Your task to perform on an android device: turn off wifi Image 0: 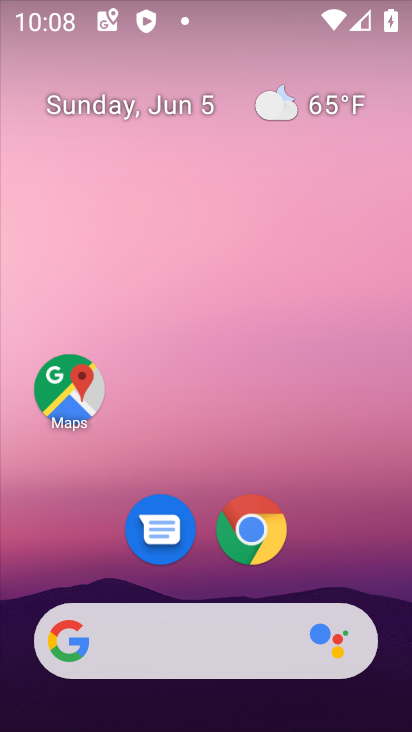
Step 0: drag from (154, 713) to (329, 33)
Your task to perform on an android device: turn off wifi Image 1: 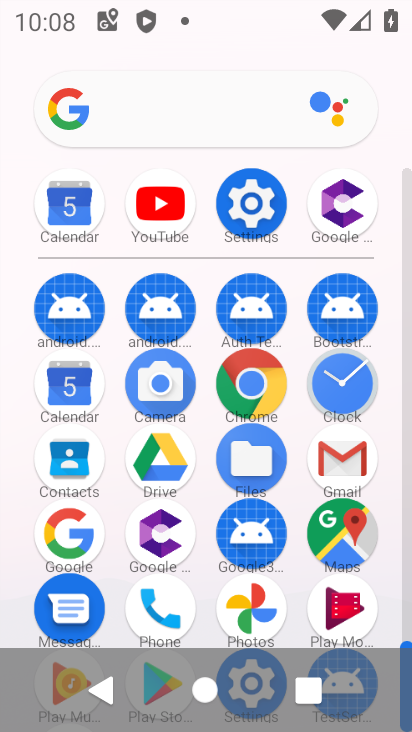
Step 1: click (234, 208)
Your task to perform on an android device: turn off wifi Image 2: 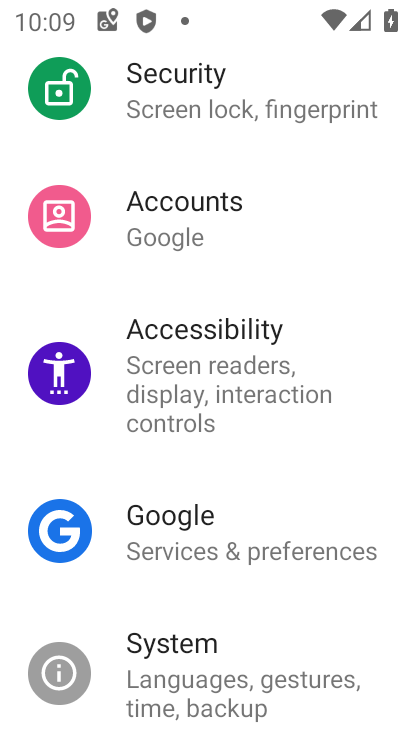
Step 2: drag from (193, 224) to (196, 726)
Your task to perform on an android device: turn off wifi Image 3: 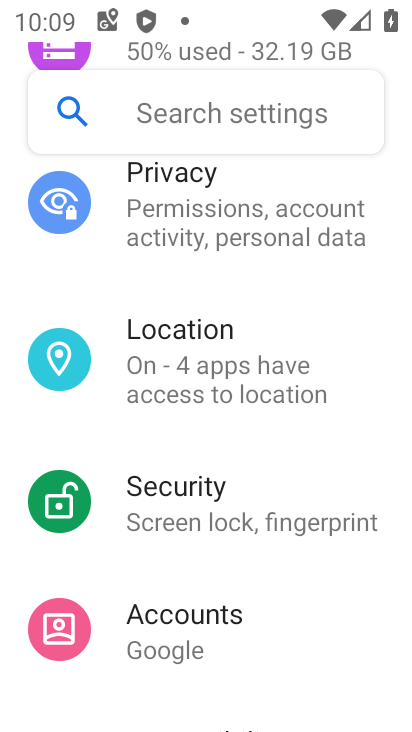
Step 3: drag from (336, 367) to (301, 722)
Your task to perform on an android device: turn off wifi Image 4: 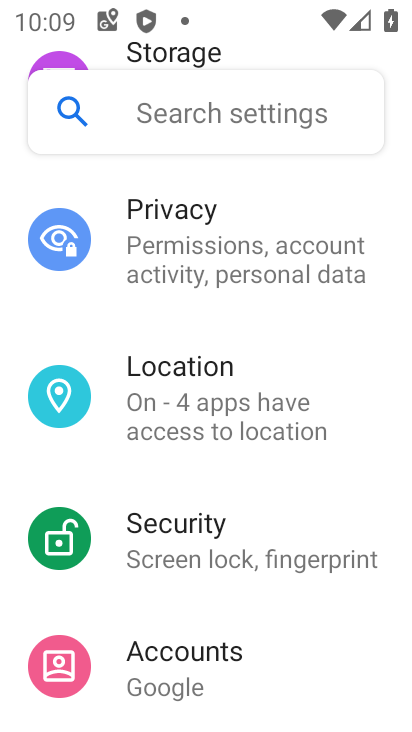
Step 4: drag from (334, 190) to (214, 727)
Your task to perform on an android device: turn off wifi Image 5: 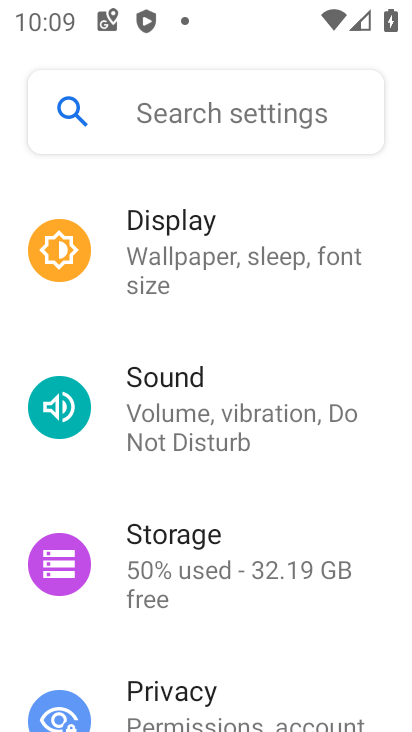
Step 5: drag from (289, 231) to (132, 728)
Your task to perform on an android device: turn off wifi Image 6: 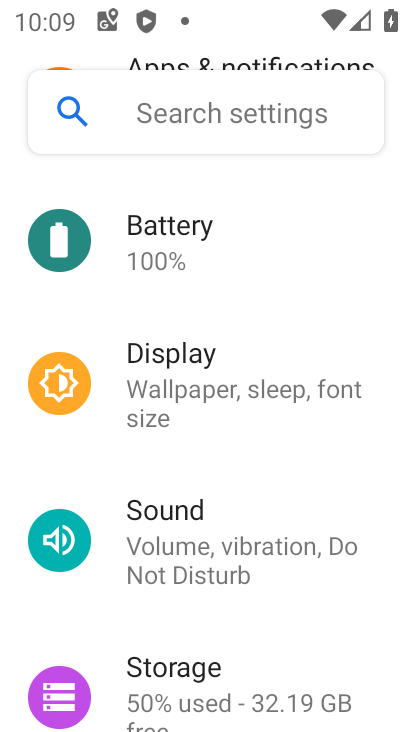
Step 6: drag from (325, 261) to (197, 720)
Your task to perform on an android device: turn off wifi Image 7: 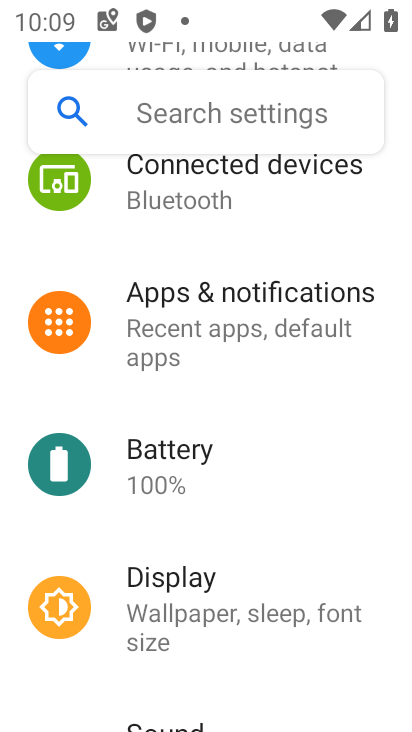
Step 7: drag from (251, 499) to (249, 723)
Your task to perform on an android device: turn off wifi Image 8: 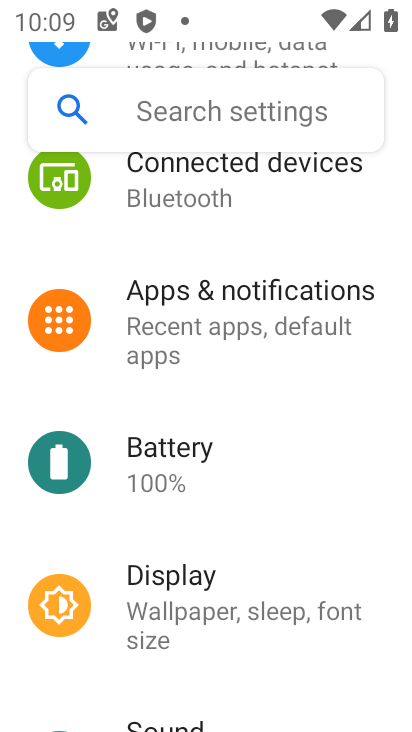
Step 8: drag from (278, 376) to (191, 721)
Your task to perform on an android device: turn off wifi Image 9: 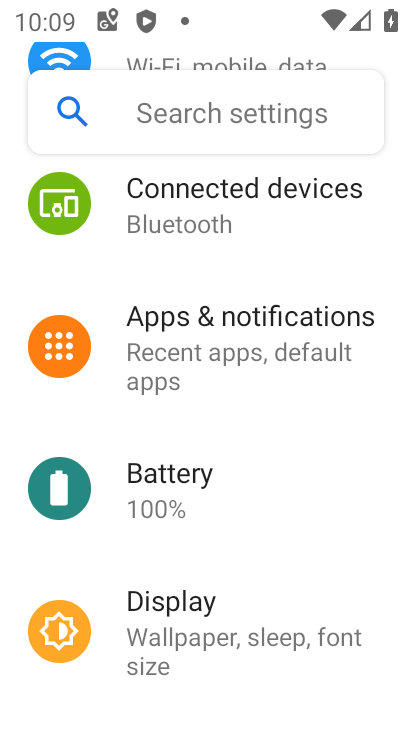
Step 9: drag from (297, 255) to (256, 681)
Your task to perform on an android device: turn off wifi Image 10: 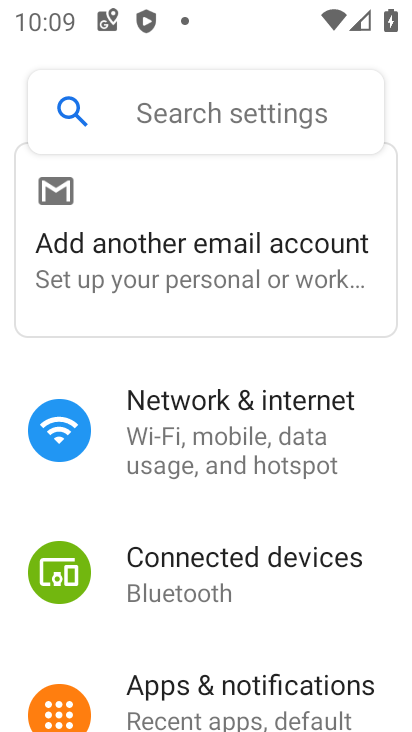
Step 10: click (240, 444)
Your task to perform on an android device: turn off wifi Image 11: 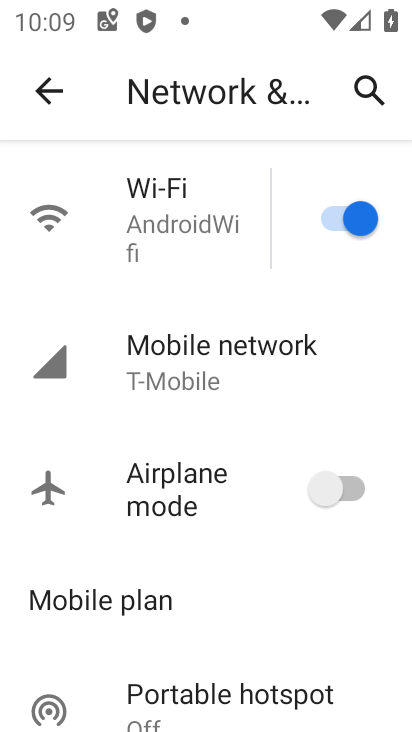
Step 11: click (357, 232)
Your task to perform on an android device: turn off wifi Image 12: 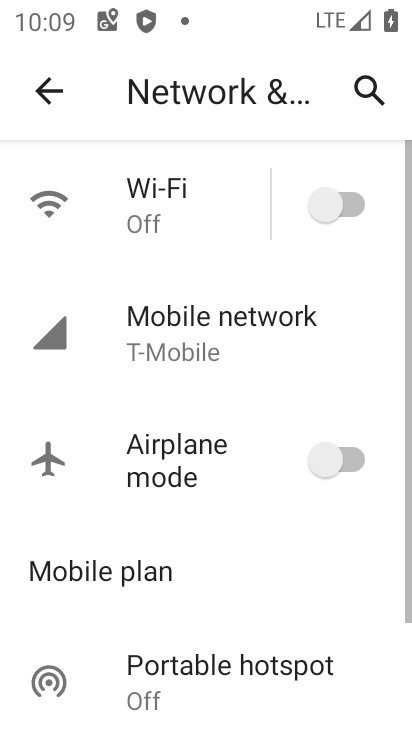
Step 12: task complete